Your task to perform on an android device: What is the recent news? Image 0: 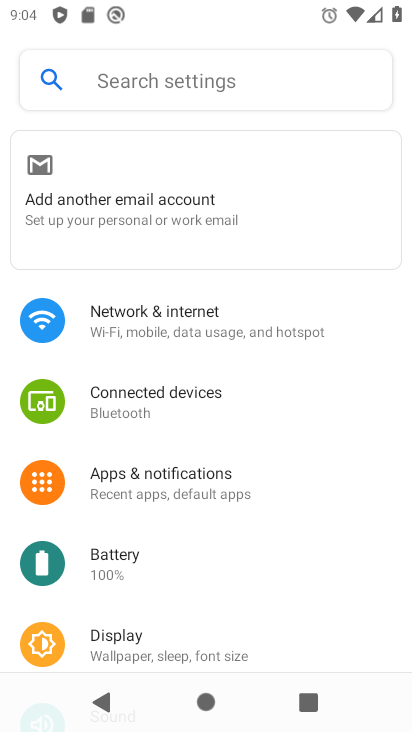
Step 0: press home button
Your task to perform on an android device: What is the recent news? Image 1: 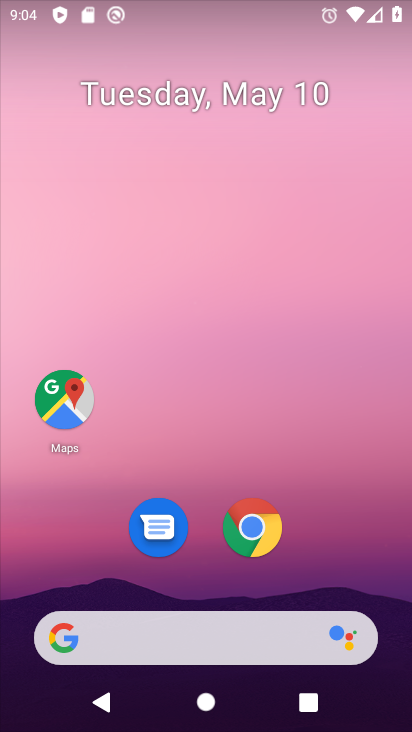
Step 1: click (173, 629)
Your task to perform on an android device: What is the recent news? Image 2: 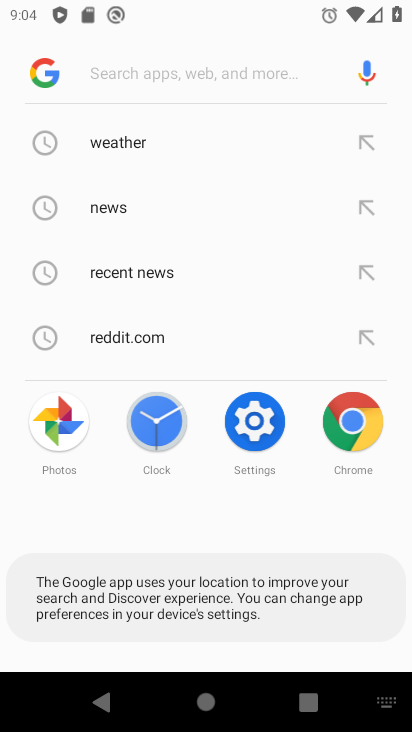
Step 2: click (98, 198)
Your task to perform on an android device: What is the recent news? Image 3: 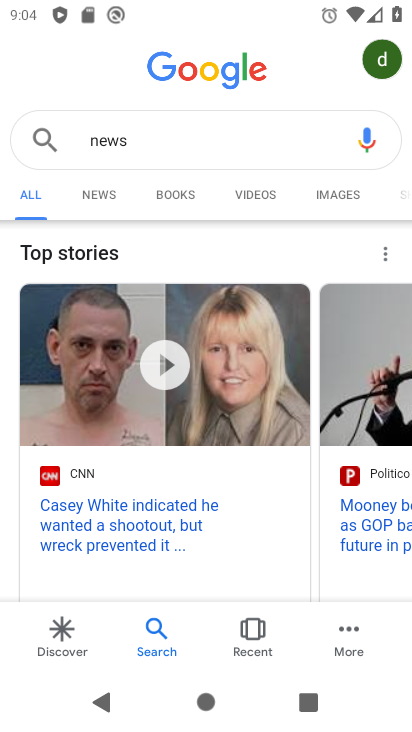
Step 3: click (102, 205)
Your task to perform on an android device: What is the recent news? Image 4: 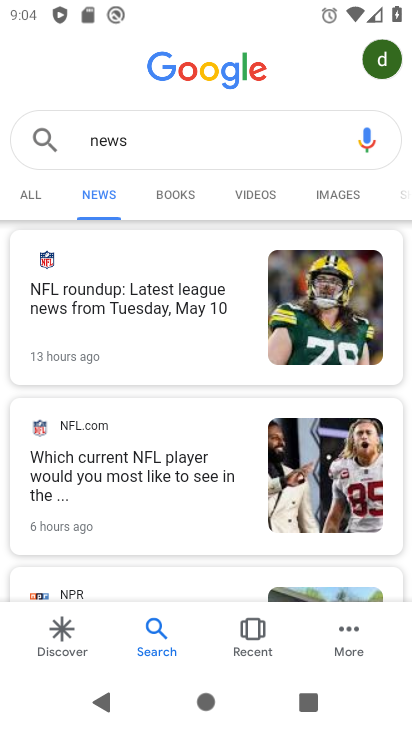
Step 4: task complete